Your task to perform on an android device: Open the calendar and show me this week's events? Image 0: 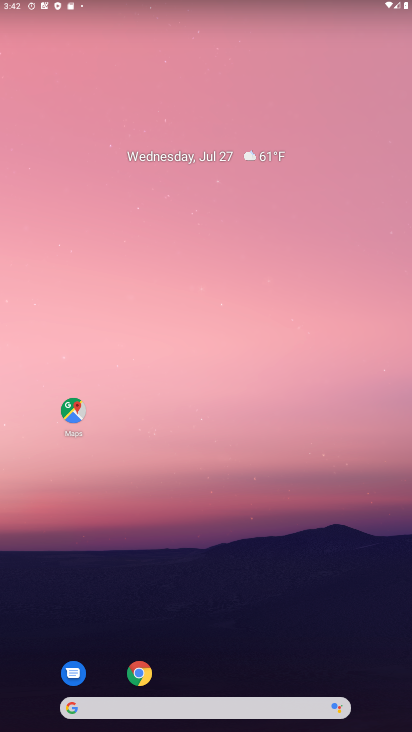
Step 0: drag from (29, 646) to (178, 108)
Your task to perform on an android device: Open the calendar and show me this week's events? Image 1: 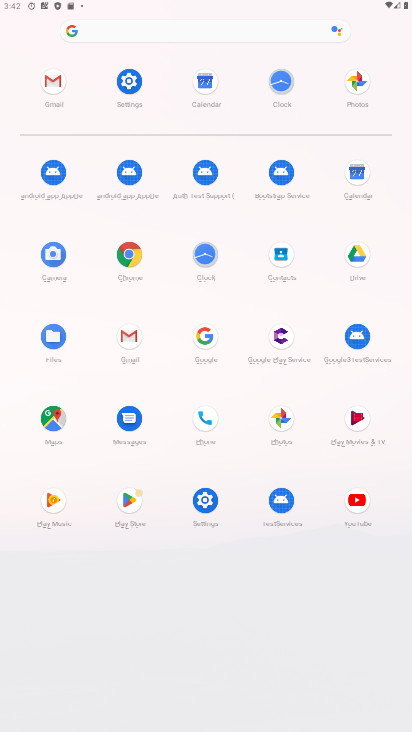
Step 1: click (359, 177)
Your task to perform on an android device: Open the calendar and show me this week's events? Image 2: 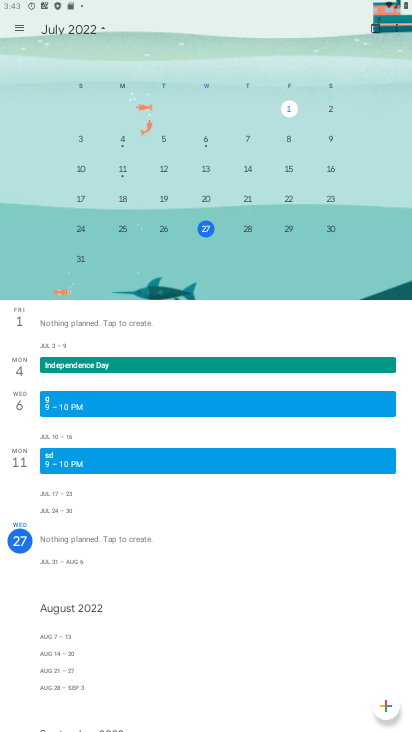
Step 2: task complete